Your task to perform on an android device: Open Google Chrome and click the shortcut for Amazon.com Image 0: 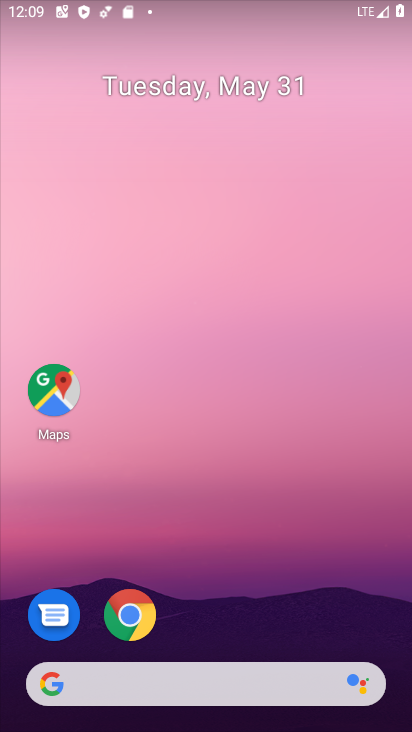
Step 0: click (148, 604)
Your task to perform on an android device: Open Google Chrome and click the shortcut for Amazon.com Image 1: 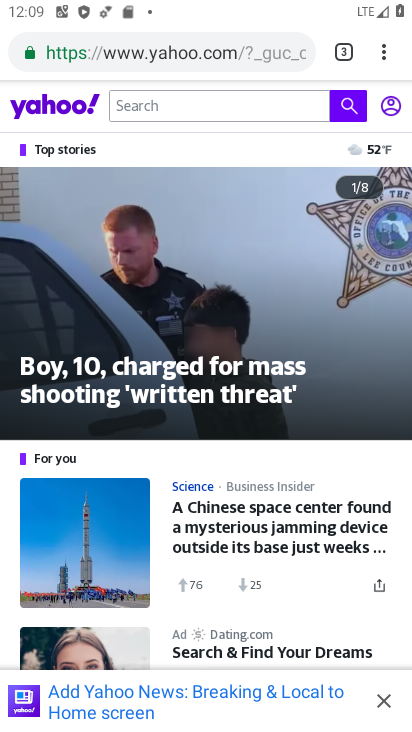
Step 1: click (380, 47)
Your task to perform on an android device: Open Google Chrome and click the shortcut for Amazon.com Image 2: 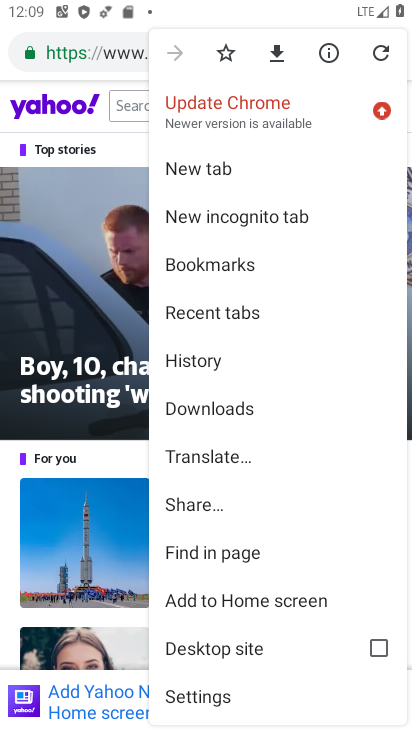
Step 2: click (209, 170)
Your task to perform on an android device: Open Google Chrome and click the shortcut for Amazon.com Image 3: 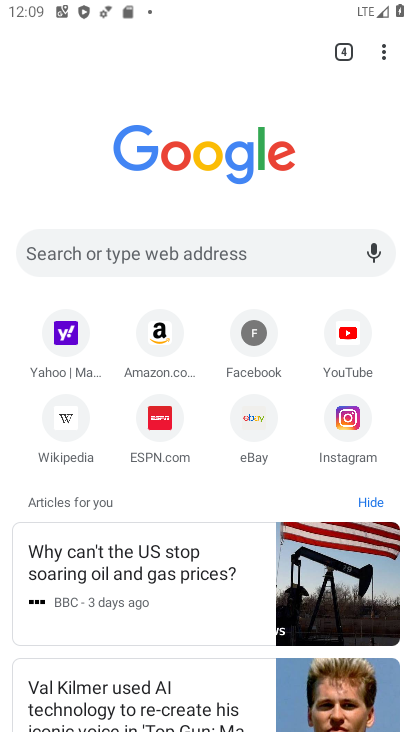
Step 3: click (159, 335)
Your task to perform on an android device: Open Google Chrome and click the shortcut for Amazon.com Image 4: 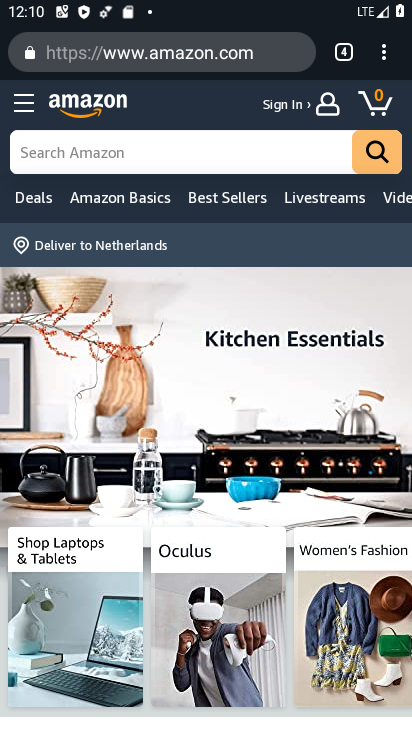
Step 4: task complete